Your task to perform on an android device: see sites visited before in the chrome app Image 0: 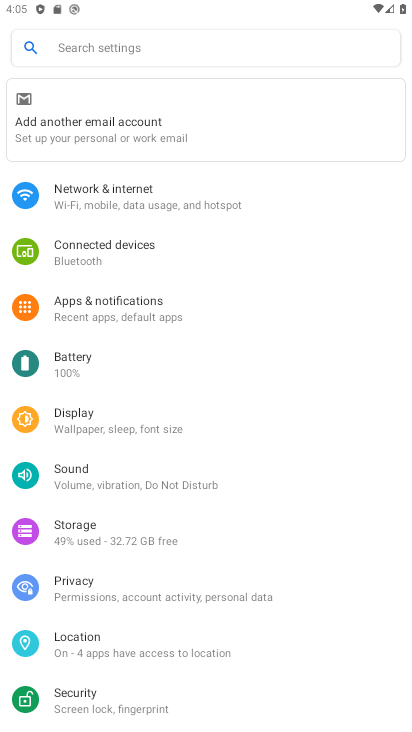
Step 0: press home button
Your task to perform on an android device: see sites visited before in the chrome app Image 1: 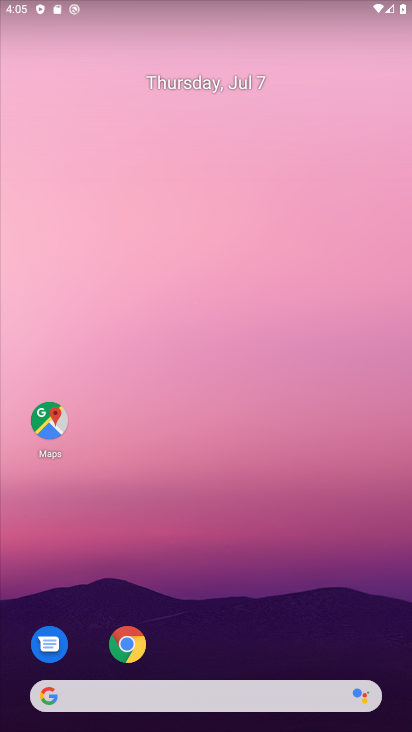
Step 1: drag from (204, 632) to (200, 166)
Your task to perform on an android device: see sites visited before in the chrome app Image 2: 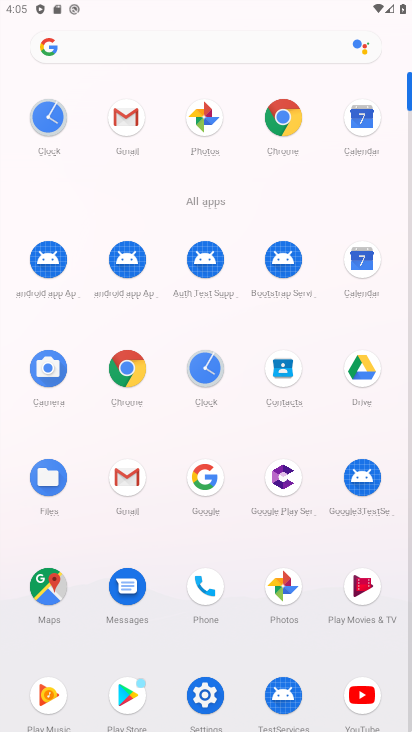
Step 2: click (260, 129)
Your task to perform on an android device: see sites visited before in the chrome app Image 3: 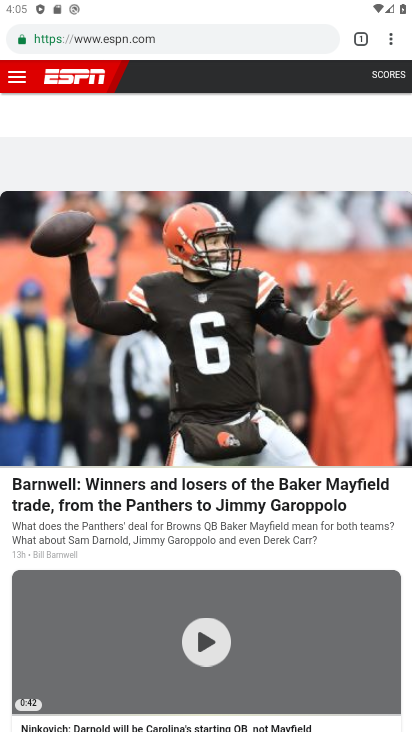
Step 3: click (389, 42)
Your task to perform on an android device: see sites visited before in the chrome app Image 4: 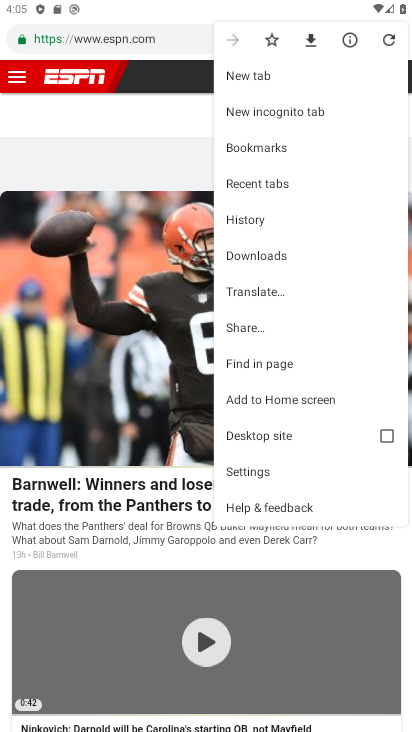
Step 4: click (289, 187)
Your task to perform on an android device: see sites visited before in the chrome app Image 5: 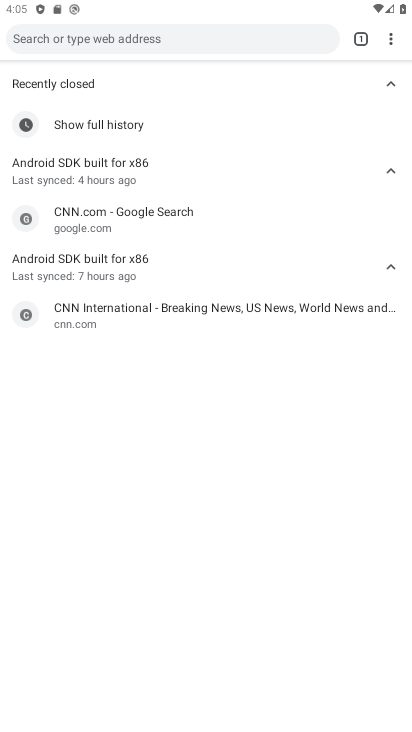
Step 5: task complete